Your task to perform on an android device: toggle translation in the chrome app Image 0: 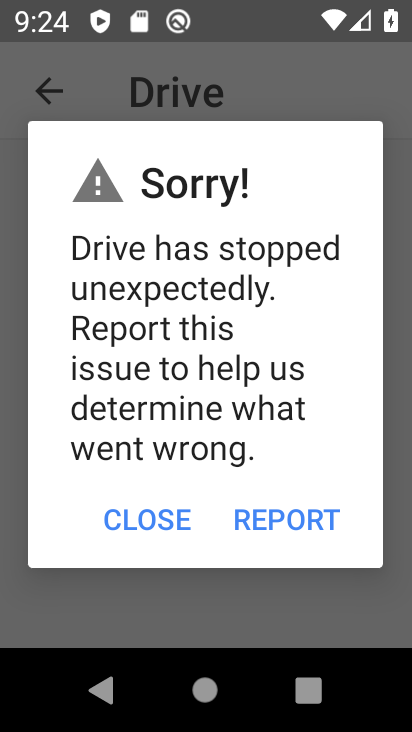
Step 0: press home button
Your task to perform on an android device: toggle translation in the chrome app Image 1: 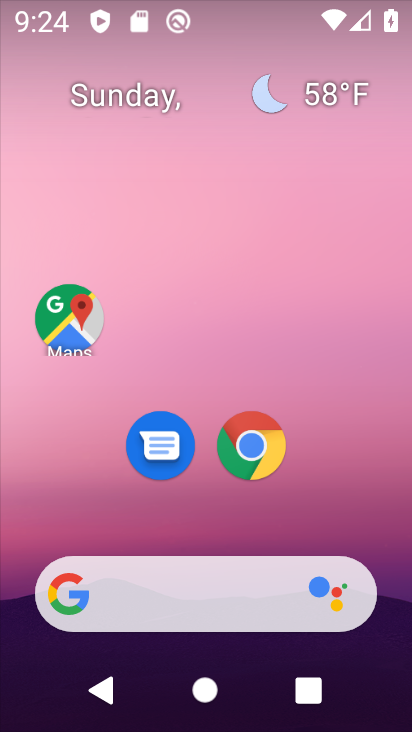
Step 1: click (267, 439)
Your task to perform on an android device: toggle translation in the chrome app Image 2: 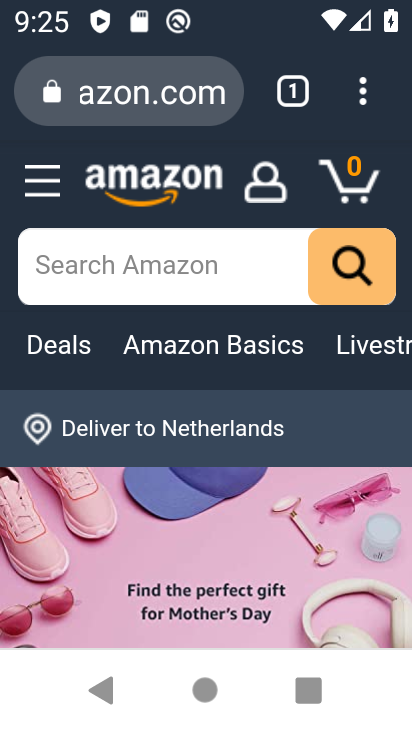
Step 2: drag from (357, 97) to (199, 475)
Your task to perform on an android device: toggle translation in the chrome app Image 3: 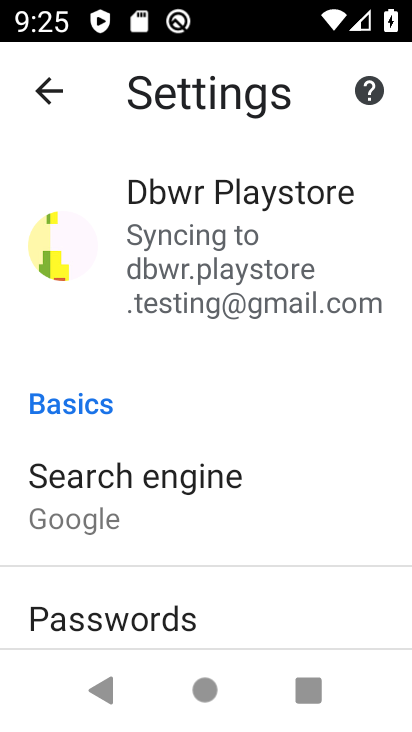
Step 3: drag from (183, 585) to (202, 196)
Your task to perform on an android device: toggle translation in the chrome app Image 4: 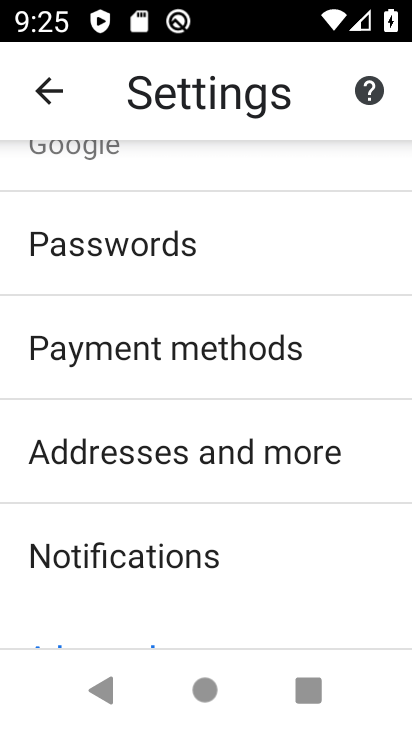
Step 4: drag from (156, 492) to (176, 152)
Your task to perform on an android device: toggle translation in the chrome app Image 5: 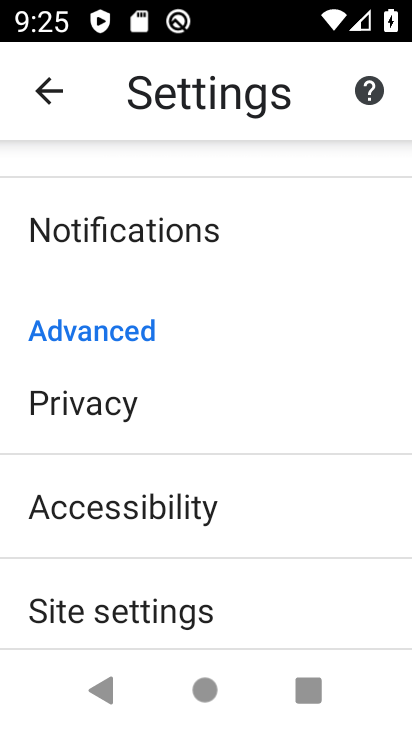
Step 5: drag from (126, 604) to (112, 343)
Your task to perform on an android device: toggle translation in the chrome app Image 6: 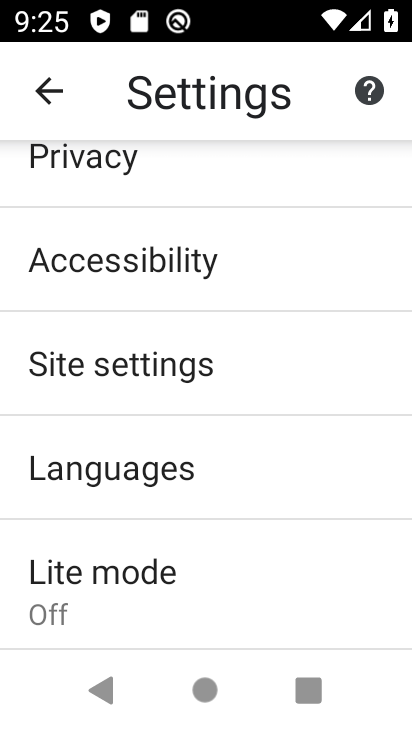
Step 6: click (129, 499)
Your task to perform on an android device: toggle translation in the chrome app Image 7: 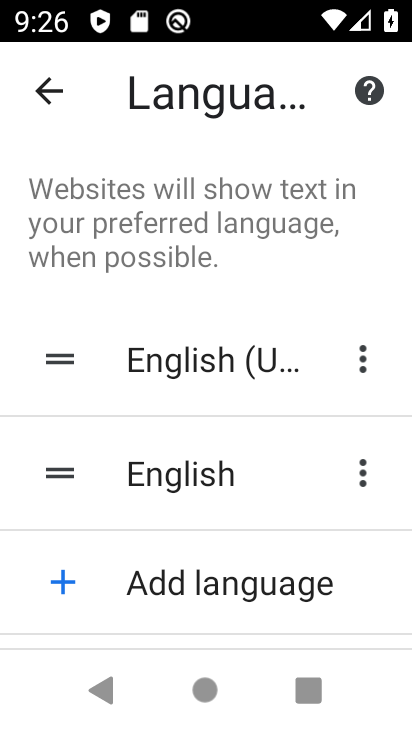
Step 7: drag from (172, 572) to (173, 122)
Your task to perform on an android device: toggle translation in the chrome app Image 8: 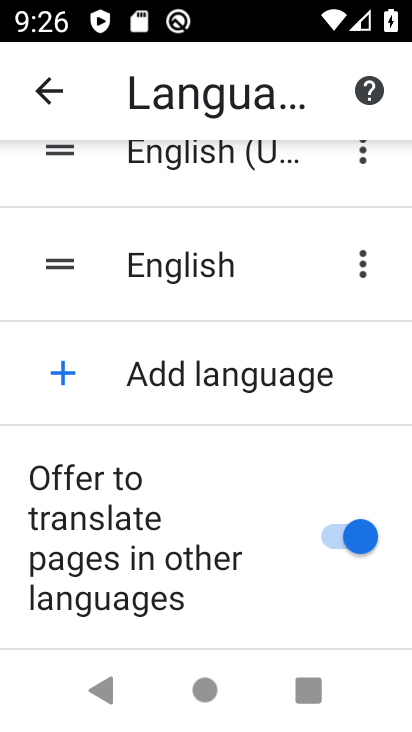
Step 8: click (349, 531)
Your task to perform on an android device: toggle translation in the chrome app Image 9: 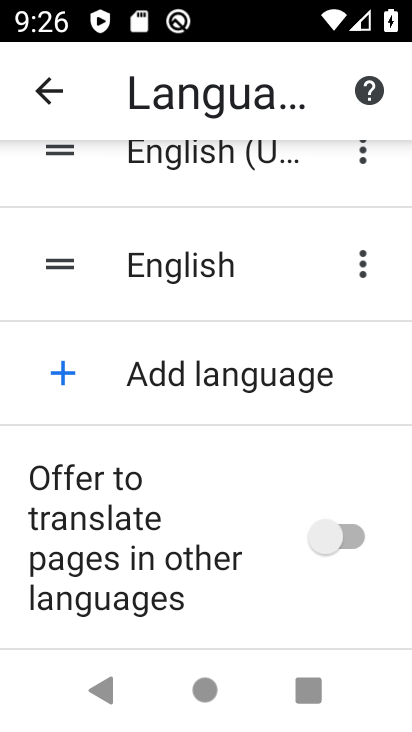
Step 9: task complete